Your task to perform on an android device: allow cookies in the chrome app Image 0: 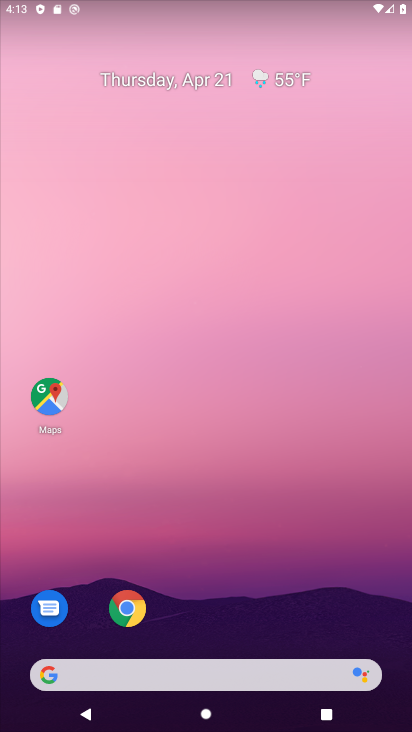
Step 0: drag from (251, 584) to (388, 39)
Your task to perform on an android device: allow cookies in the chrome app Image 1: 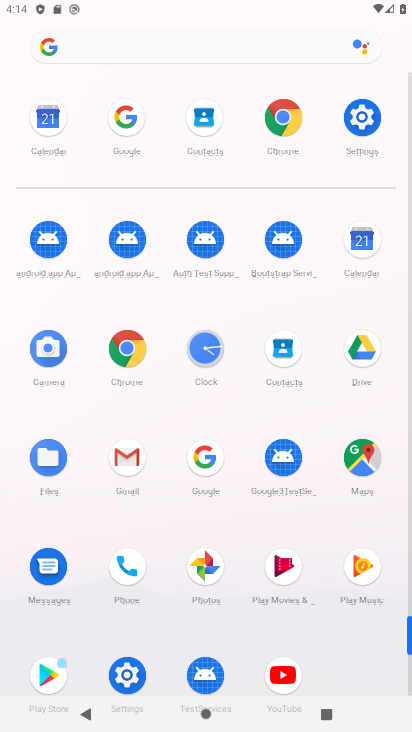
Step 1: click (136, 362)
Your task to perform on an android device: allow cookies in the chrome app Image 2: 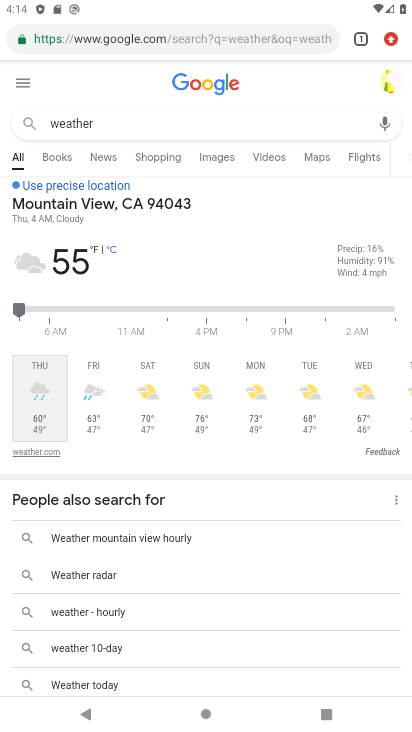
Step 2: click (20, 83)
Your task to perform on an android device: allow cookies in the chrome app Image 3: 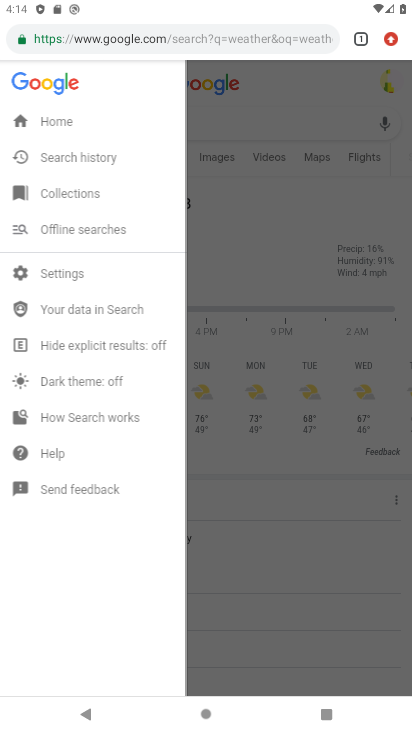
Step 3: click (80, 277)
Your task to perform on an android device: allow cookies in the chrome app Image 4: 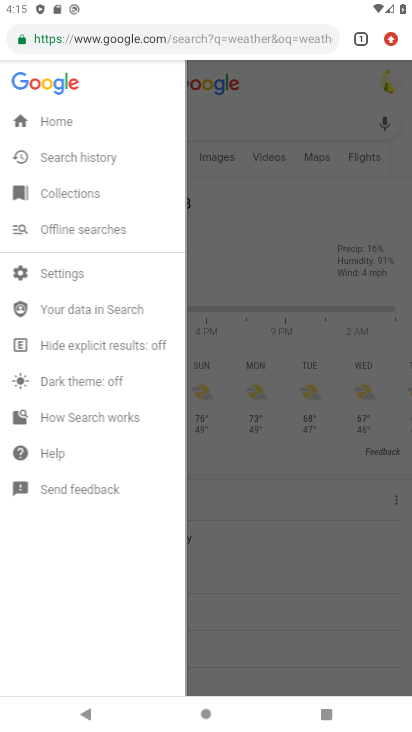
Step 4: click (68, 290)
Your task to perform on an android device: allow cookies in the chrome app Image 5: 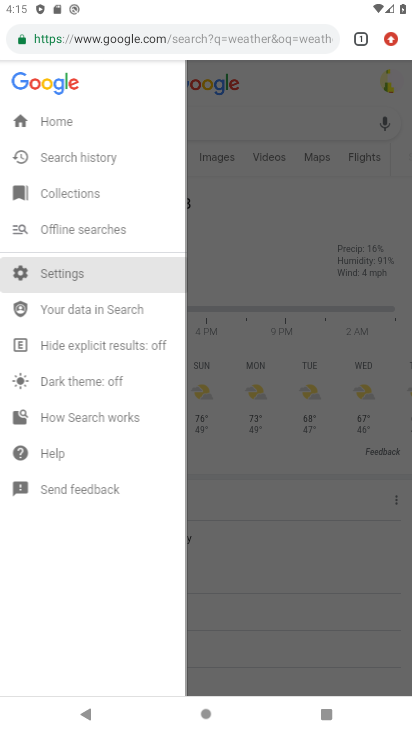
Step 5: click (76, 277)
Your task to perform on an android device: allow cookies in the chrome app Image 6: 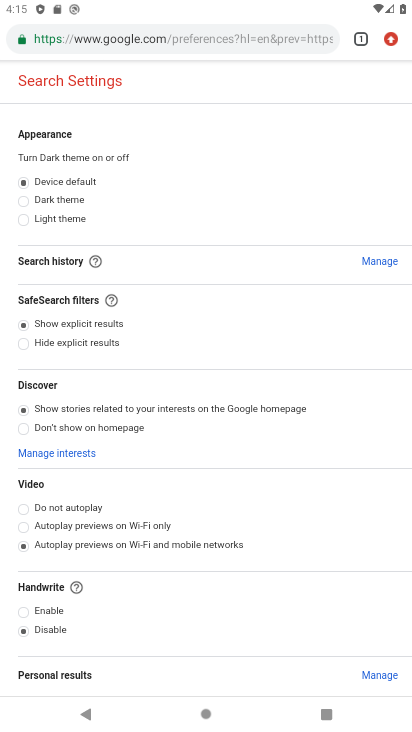
Step 6: drag from (193, 318) to (208, 216)
Your task to perform on an android device: allow cookies in the chrome app Image 7: 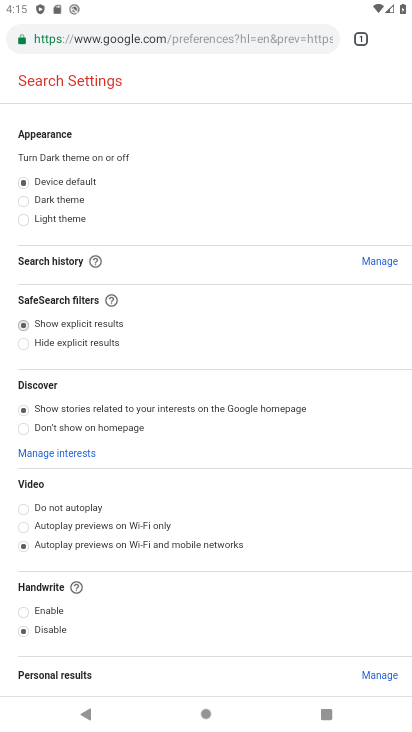
Step 7: click (208, 215)
Your task to perform on an android device: allow cookies in the chrome app Image 8: 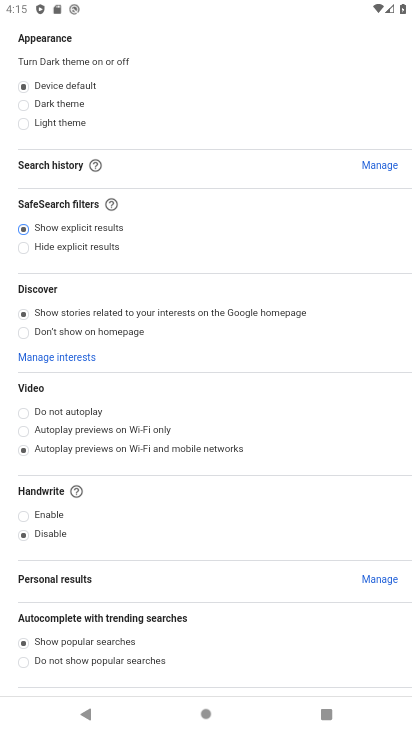
Step 8: click (86, 717)
Your task to perform on an android device: allow cookies in the chrome app Image 9: 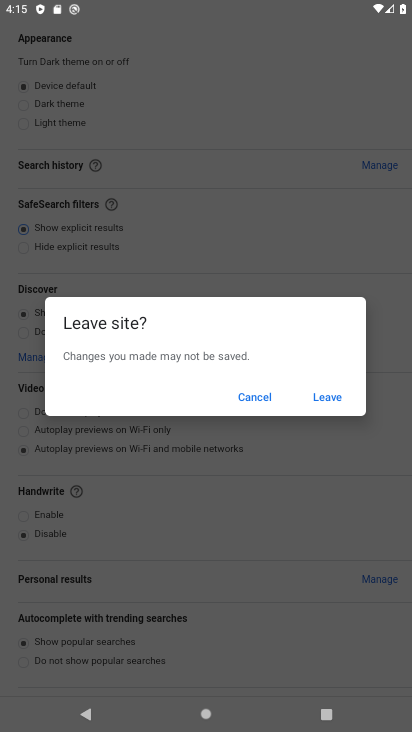
Step 9: click (261, 402)
Your task to perform on an android device: allow cookies in the chrome app Image 10: 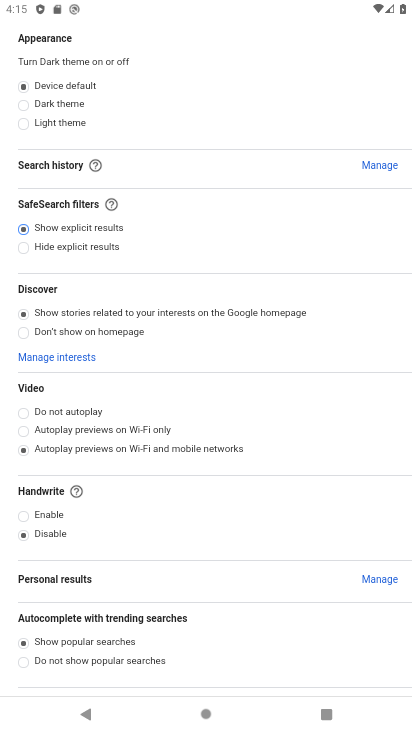
Step 10: drag from (220, 153) to (173, 455)
Your task to perform on an android device: allow cookies in the chrome app Image 11: 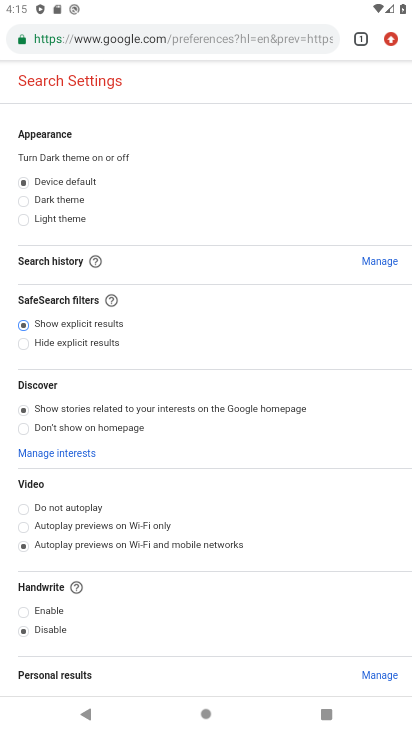
Step 11: drag from (196, 673) to (268, 159)
Your task to perform on an android device: allow cookies in the chrome app Image 12: 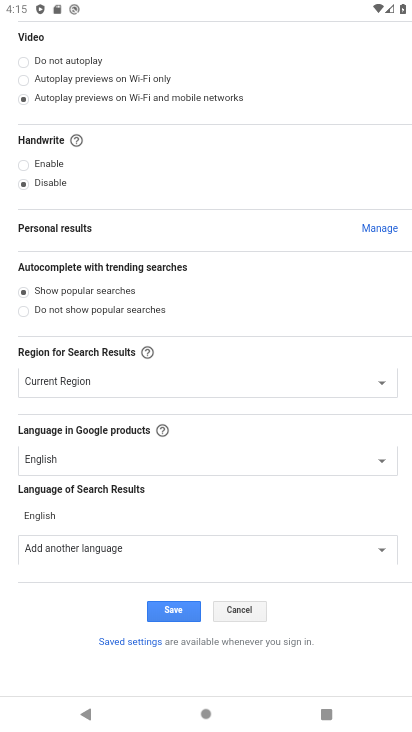
Step 12: drag from (178, 184) to (191, 487)
Your task to perform on an android device: allow cookies in the chrome app Image 13: 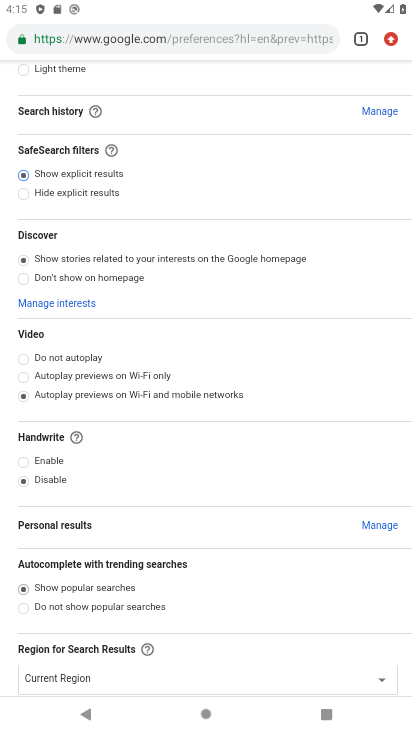
Step 13: click (82, 720)
Your task to perform on an android device: allow cookies in the chrome app Image 14: 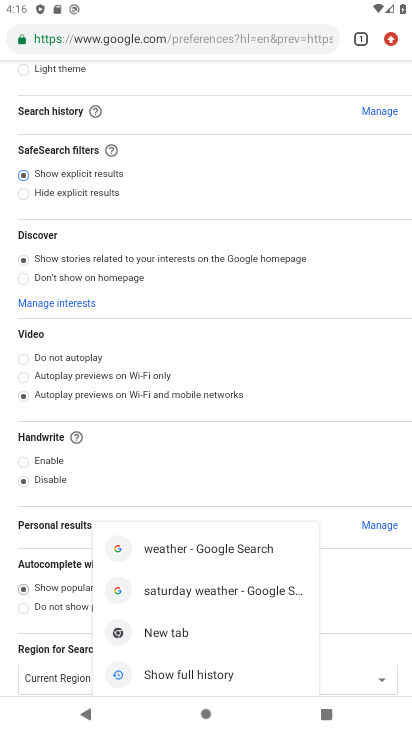
Step 14: click (85, 713)
Your task to perform on an android device: allow cookies in the chrome app Image 15: 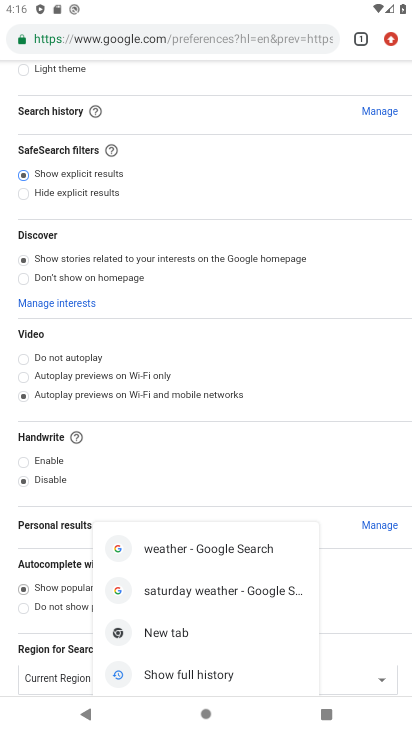
Step 15: click (85, 713)
Your task to perform on an android device: allow cookies in the chrome app Image 16: 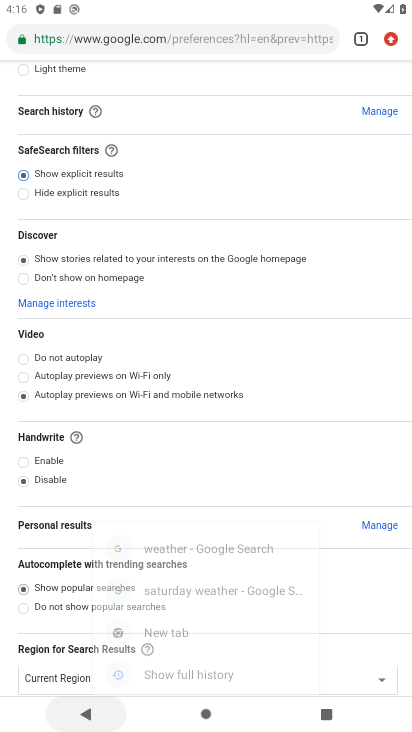
Step 16: click (85, 713)
Your task to perform on an android device: allow cookies in the chrome app Image 17: 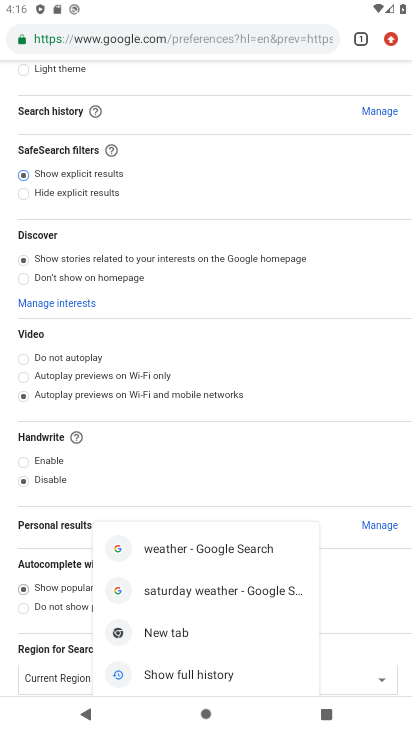
Step 17: click (84, 718)
Your task to perform on an android device: allow cookies in the chrome app Image 18: 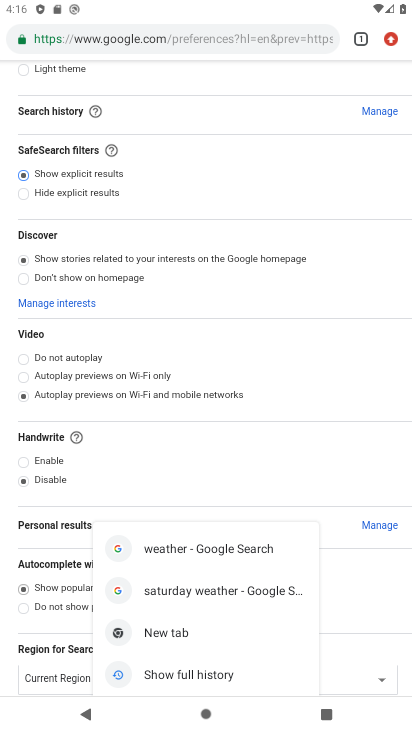
Step 18: click (83, 716)
Your task to perform on an android device: allow cookies in the chrome app Image 19: 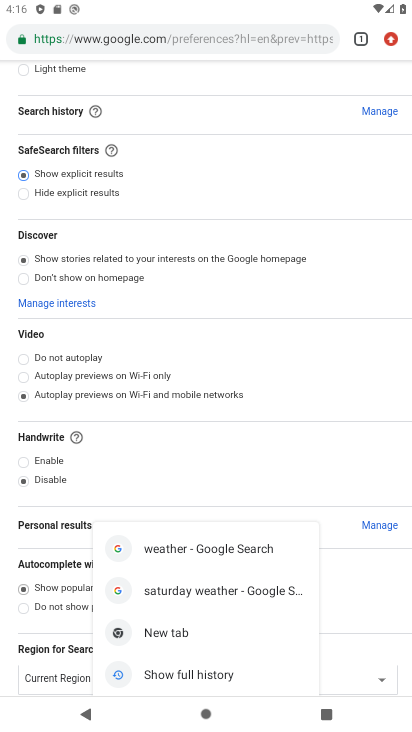
Step 19: drag from (85, 714) to (117, 597)
Your task to perform on an android device: allow cookies in the chrome app Image 20: 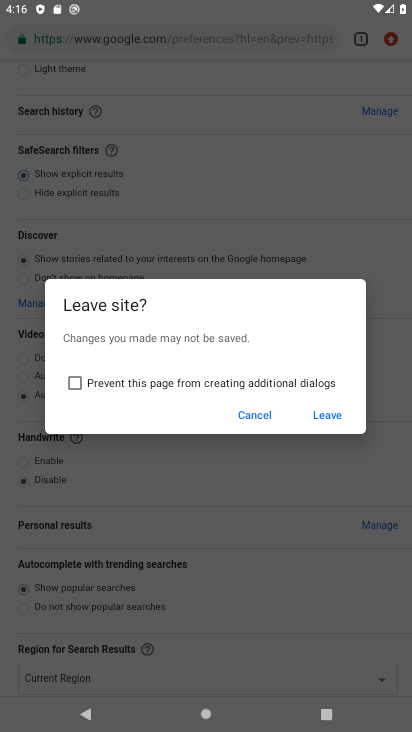
Step 20: click (249, 414)
Your task to perform on an android device: allow cookies in the chrome app Image 21: 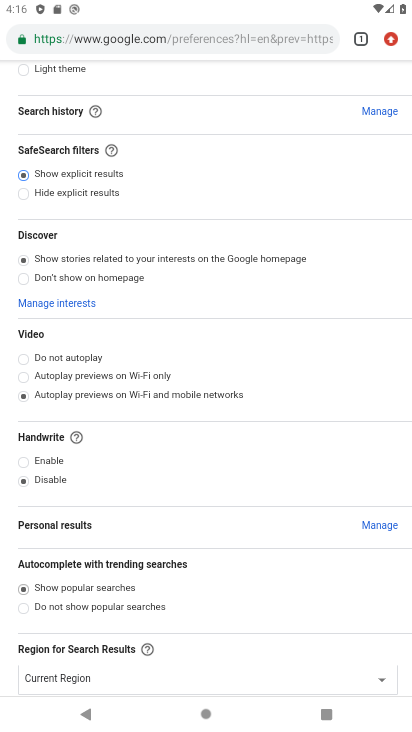
Step 21: click (165, 297)
Your task to perform on an android device: allow cookies in the chrome app Image 22: 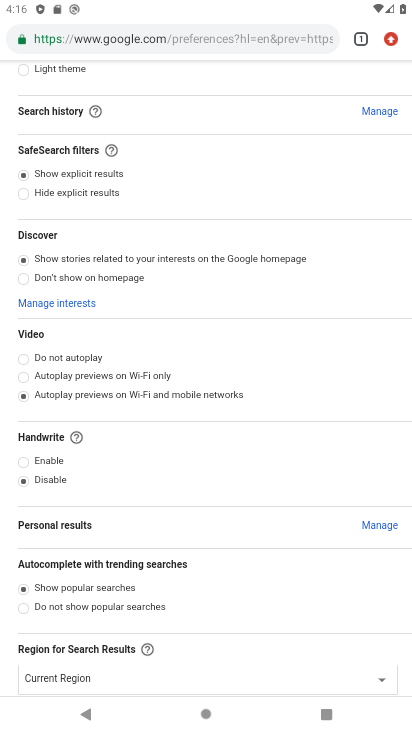
Step 22: click (205, 718)
Your task to perform on an android device: allow cookies in the chrome app Image 23: 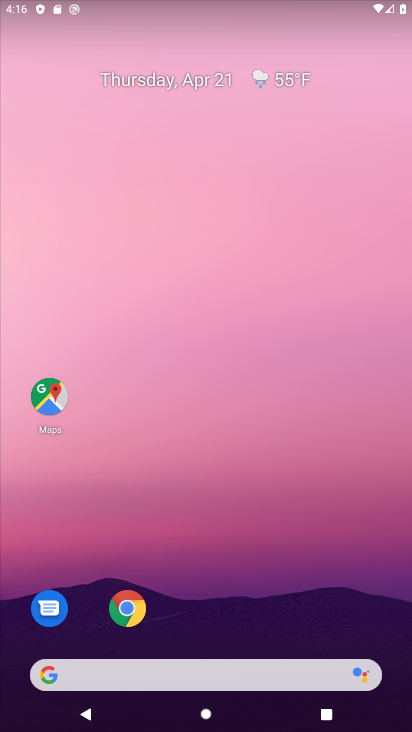
Step 23: drag from (219, 562) to (283, 14)
Your task to perform on an android device: allow cookies in the chrome app Image 24: 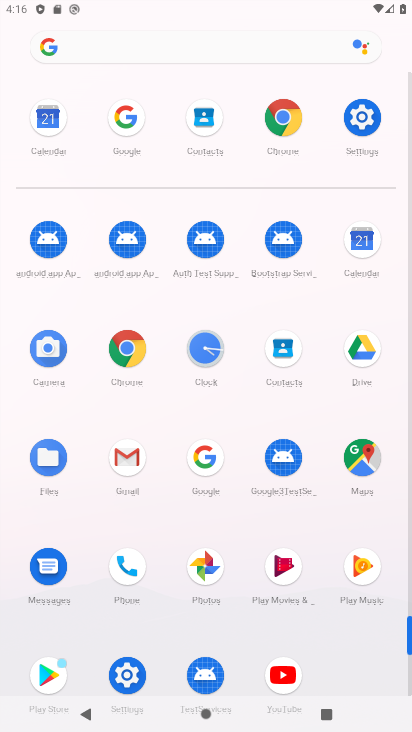
Step 24: click (125, 349)
Your task to perform on an android device: allow cookies in the chrome app Image 25: 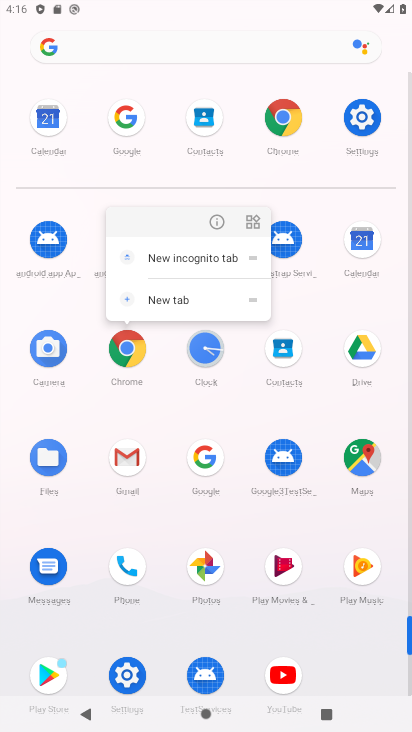
Step 25: click (126, 345)
Your task to perform on an android device: allow cookies in the chrome app Image 26: 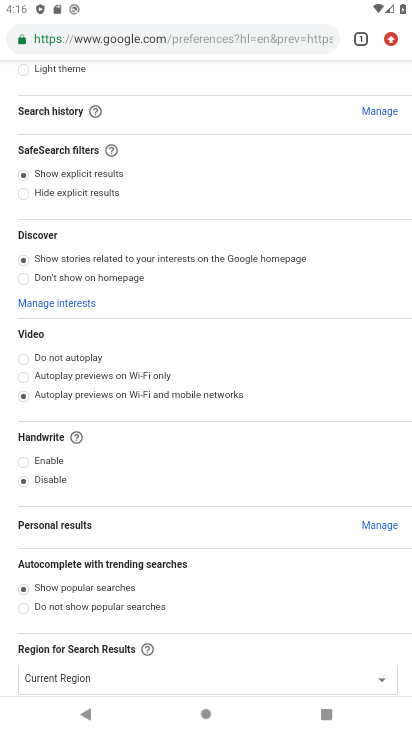
Step 26: task complete